Your task to perform on an android device: How do I get to the nearest McDonalds? Image 0: 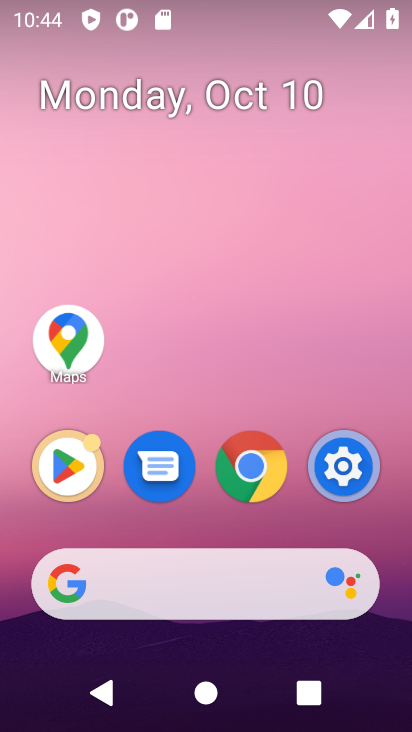
Step 0: click (49, 557)
Your task to perform on an android device: How do I get to the nearest McDonalds? Image 1: 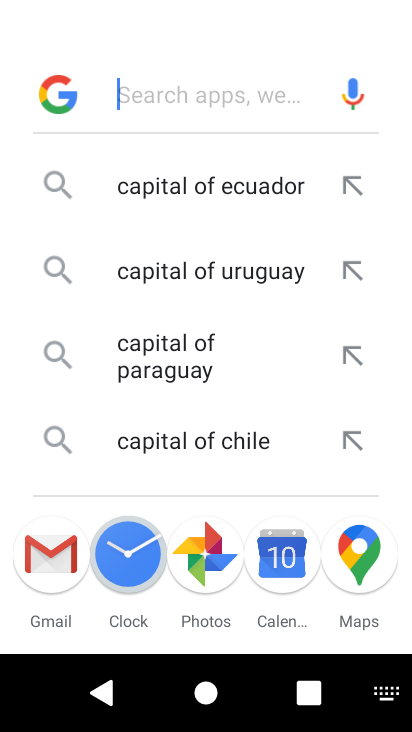
Step 1: type "How do I get to the nearest McDonalds"
Your task to perform on an android device: How do I get to the nearest McDonalds? Image 2: 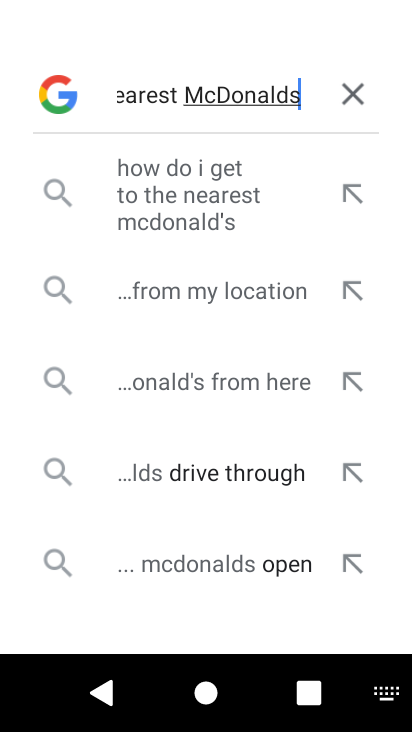
Step 2: press enter
Your task to perform on an android device: How do I get to the nearest McDonalds? Image 3: 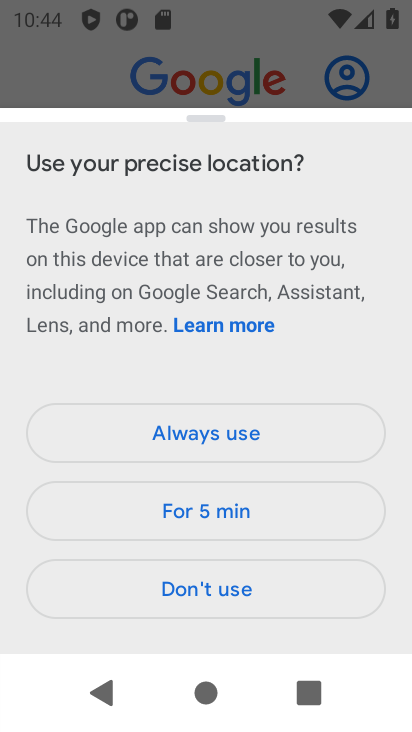
Step 3: drag from (217, 356) to (266, 187)
Your task to perform on an android device: How do I get to the nearest McDonalds? Image 4: 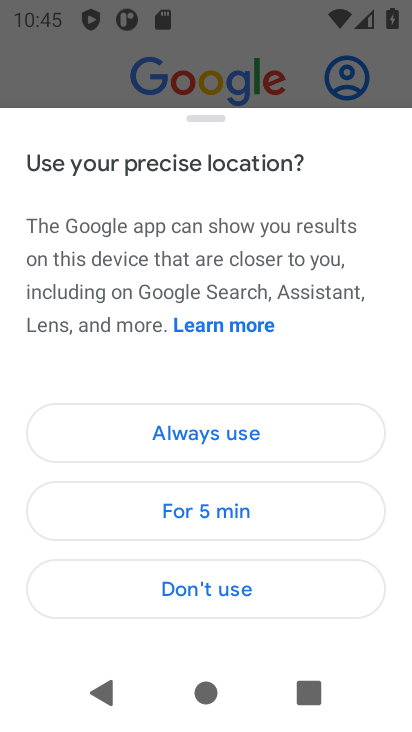
Step 4: drag from (330, 333) to (324, 267)
Your task to perform on an android device: How do I get to the nearest McDonalds? Image 5: 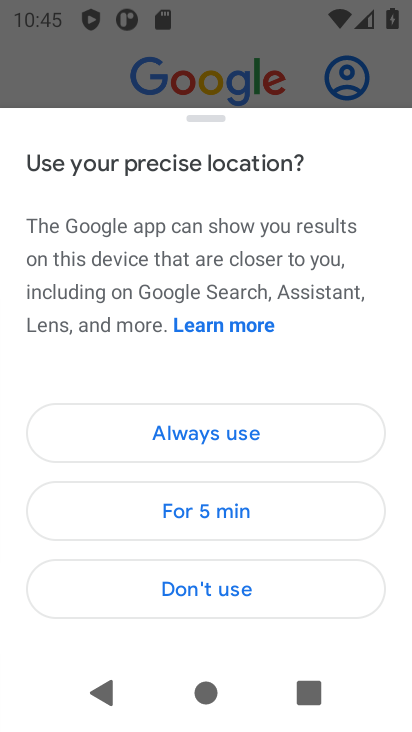
Step 5: drag from (200, 376) to (208, 176)
Your task to perform on an android device: How do I get to the nearest McDonalds? Image 6: 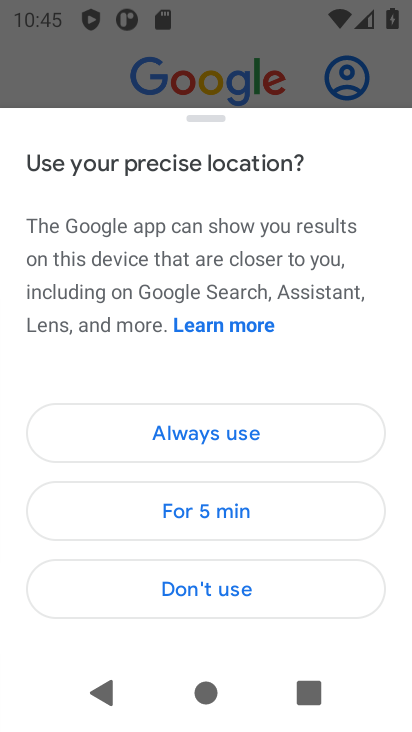
Step 6: click (242, 437)
Your task to perform on an android device: How do I get to the nearest McDonalds? Image 7: 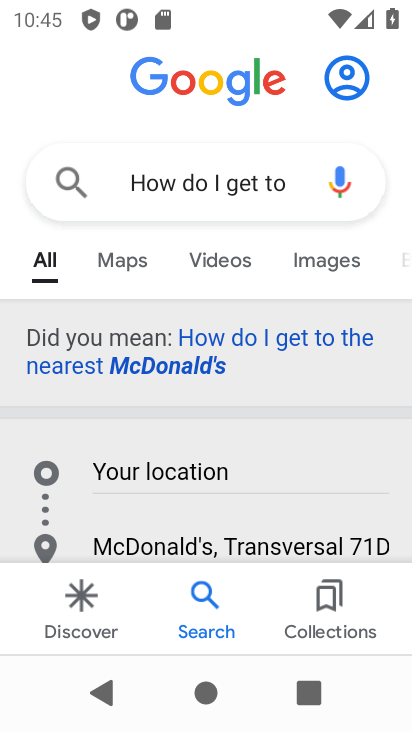
Step 7: task complete